Your task to perform on an android device: refresh tabs in the chrome app Image 0: 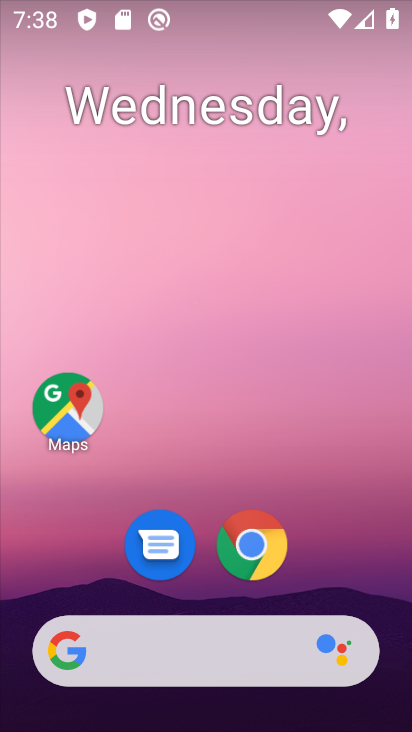
Step 0: click (252, 548)
Your task to perform on an android device: refresh tabs in the chrome app Image 1: 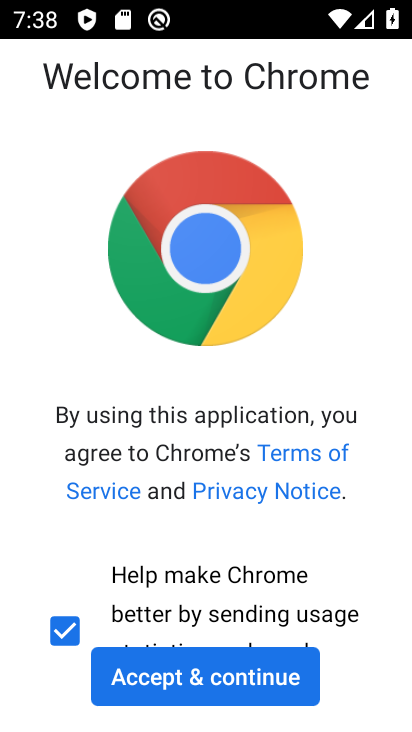
Step 1: click (161, 674)
Your task to perform on an android device: refresh tabs in the chrome app Image 2: 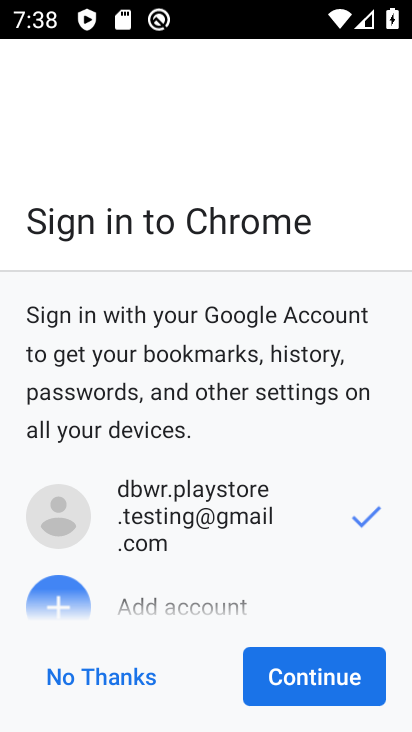
Step 2: click (351, 680)
Your task to perform on an android device: refresh tabs in the chrome app Image 3: 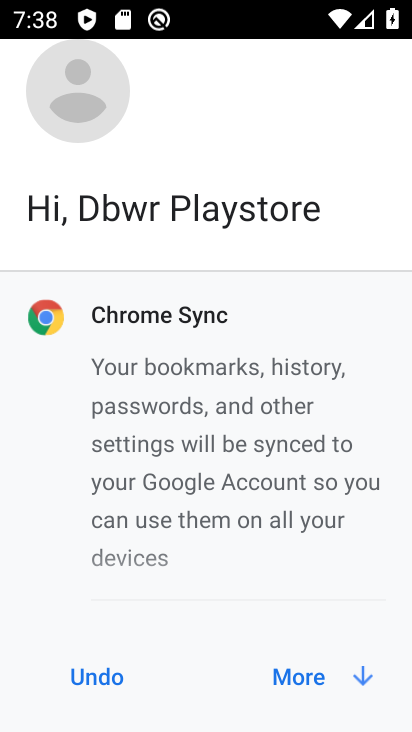
Step 3: click (298, 679)
Your task to perform on an android device: refresh tabs in the chrome app Image 4: 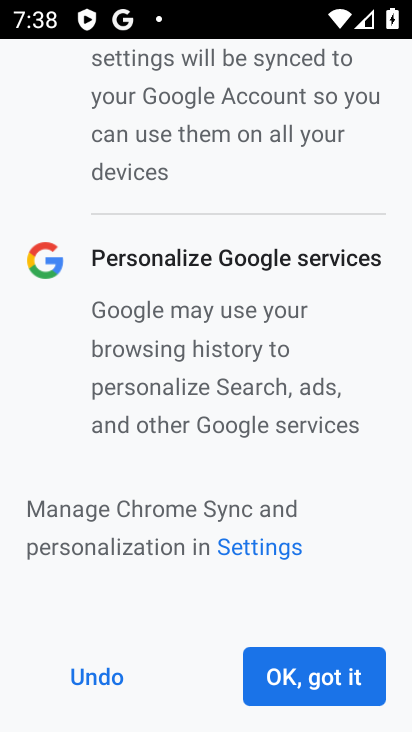
Step 4: click (298, 679)
Your task to perform on an android device: refresh tabs in the chrome app Image 5: 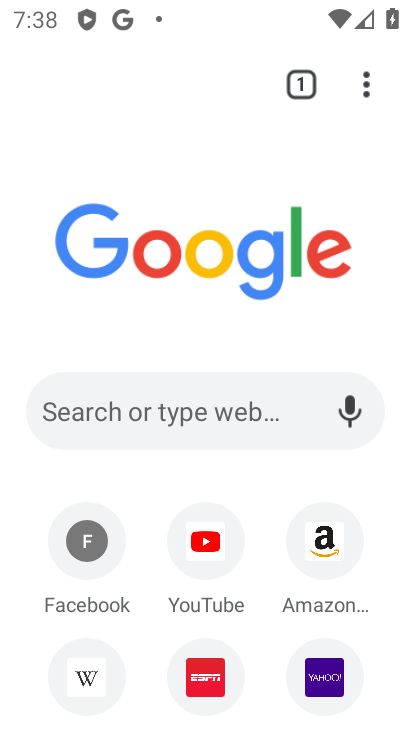
Step 5: click (369, 86)
Your task to perform on an android device: refresh tabs in the chrome app Image 6: 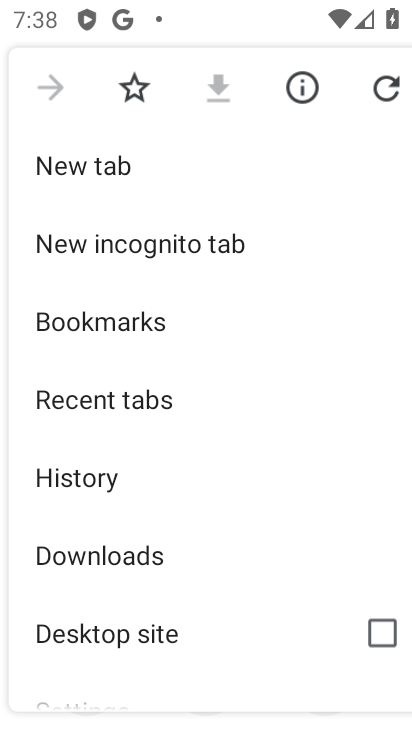
Step 6: click (386, 91)
Your task to perform on an android device: refresh tabs in the chrome app Image 7: 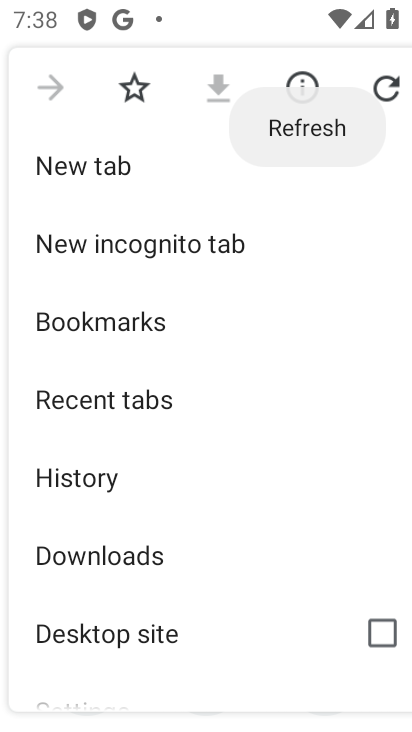
Step 7: click (386, 91)
Your task to perform on an android device: refresh tabs in the chrome app Image 8: 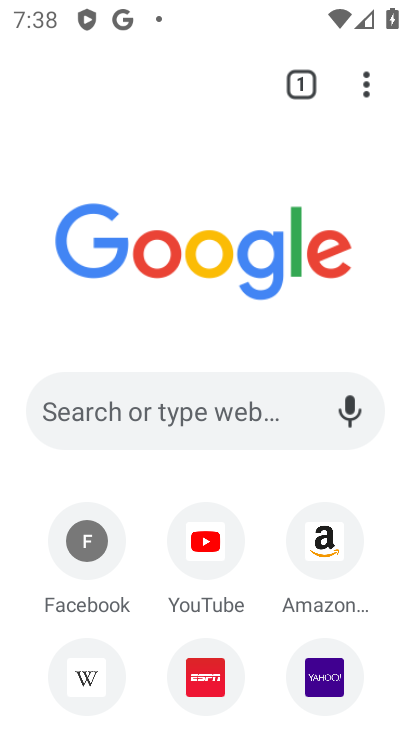
Step 8: task complete